Your task to perform on an android device: toggle priority inbox in the gmail app Image 0: 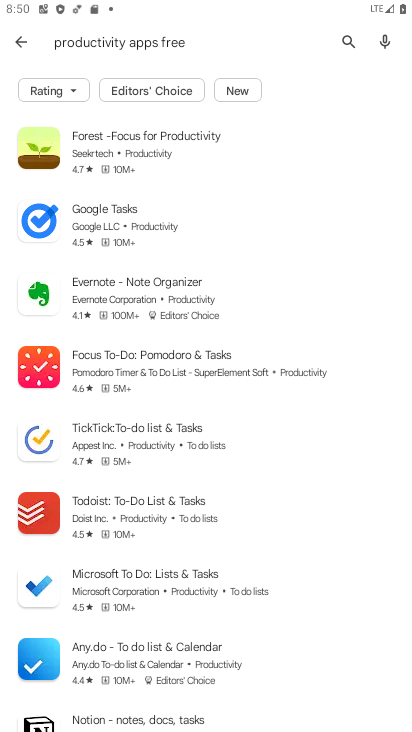
Step 0: press home button
Your task to perform on an android device: toggle priority inbox in the gmail app Image 1: 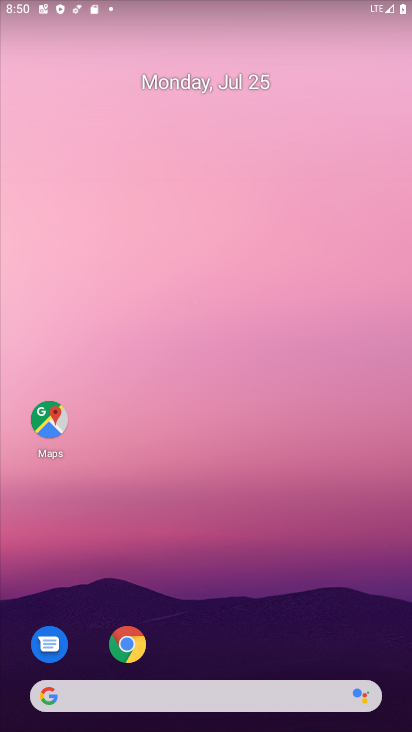
Step 1: drag from (326, 483) to (334, 68)
Your task to perform on an android device: toggle priority inbox in the gmail app Image 2: 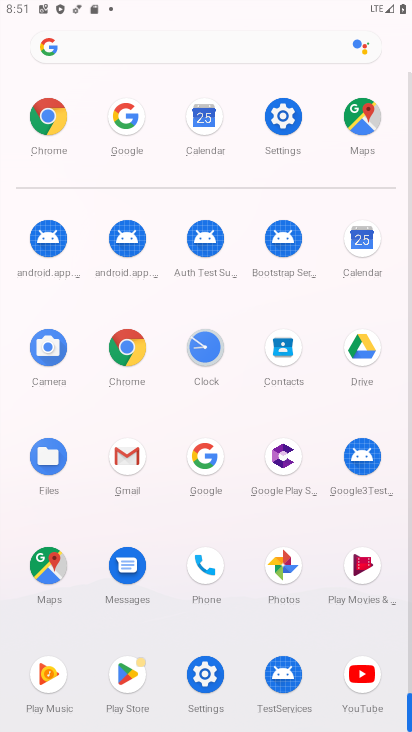
Step 2: click (129, 471)
Your task to perform on an android device: toggle priority inbox in the gmail app Image 3: 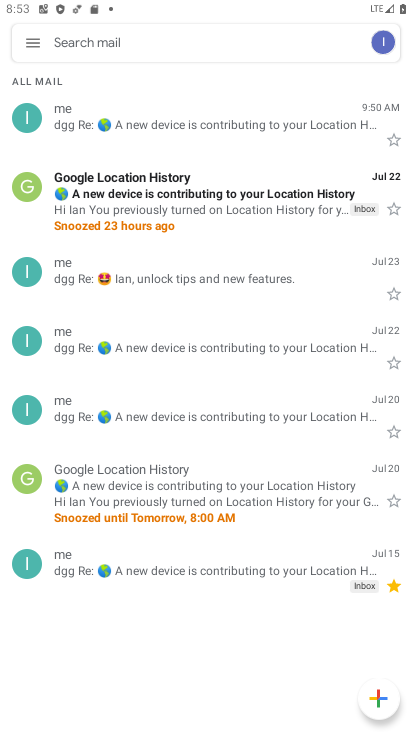
Step 3: click (35, 32)
Your task to perform on an android device: toggle priority inbox in the gmail app Image 4: 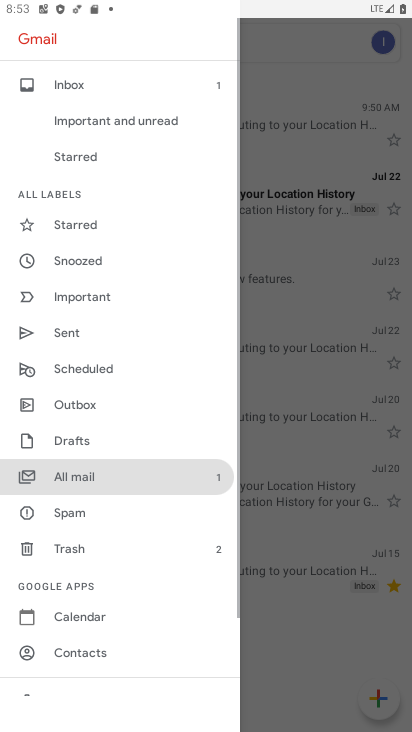
Step 4: drag from (85, 586) to (92, 307)
Your task to perform on an android device: toggle priority inbox in the gmail app Image 5: 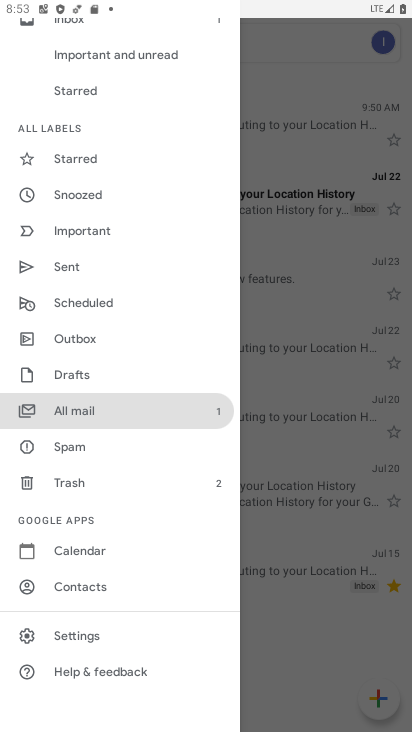
Step 5: click (86, 636)
Your task to perform on an android device: toggle priority inbox in the gmail app Image 6: 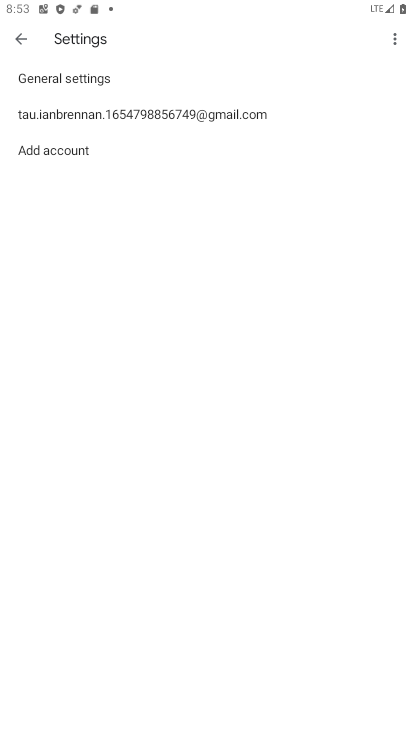
Step 6: click (197, 110)
Your task to perform on an android device: toggle priority inbox in the gmail app Image 7: 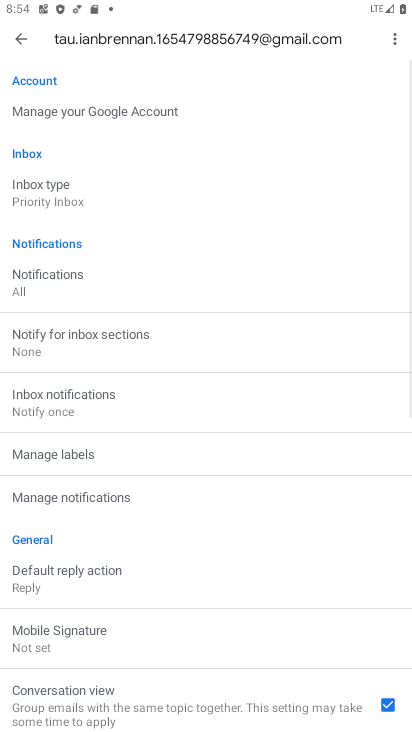
Step 7: click (128, 205)
Your task to perform on an android device: toggle priority inbox in the gmail app Image 8: 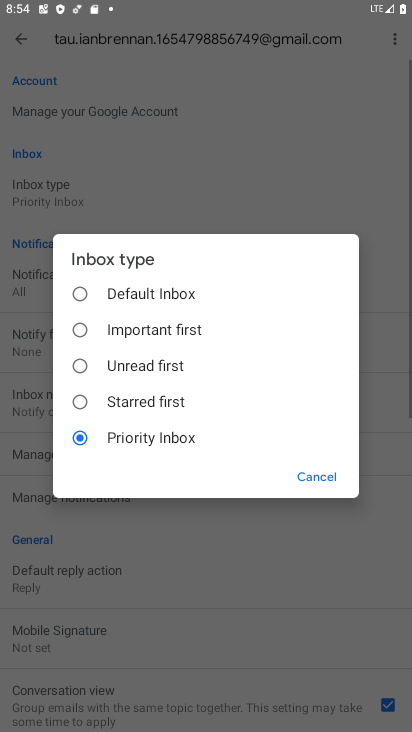
Step 8: click (167, 300)
Your task to perform on an android device: toggle priority inbox in the gmail app Image 9: 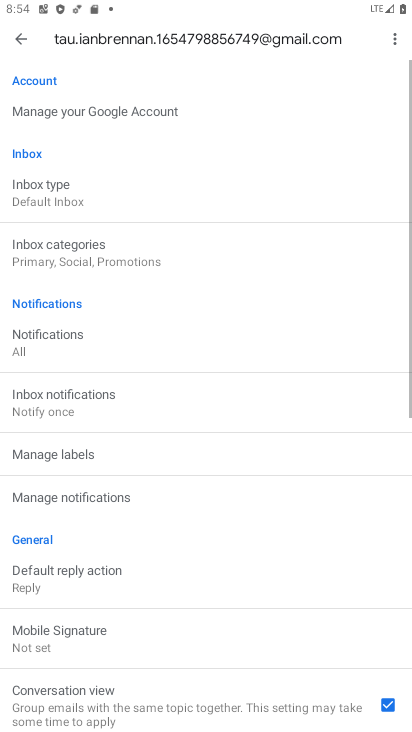
Step 9: task complete